Your task to perform on an android device: Search for Italian restaurants on Maps Image 0: 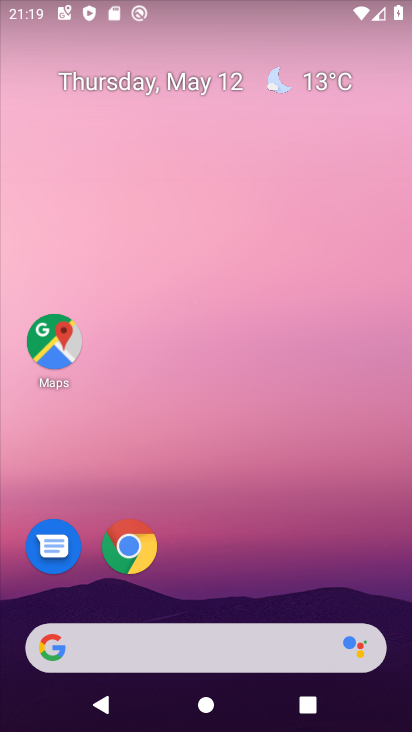
Step 0: click (270, 591)
Your task to perform on an android device: Search for Italian restaurants on Maps Image 1: 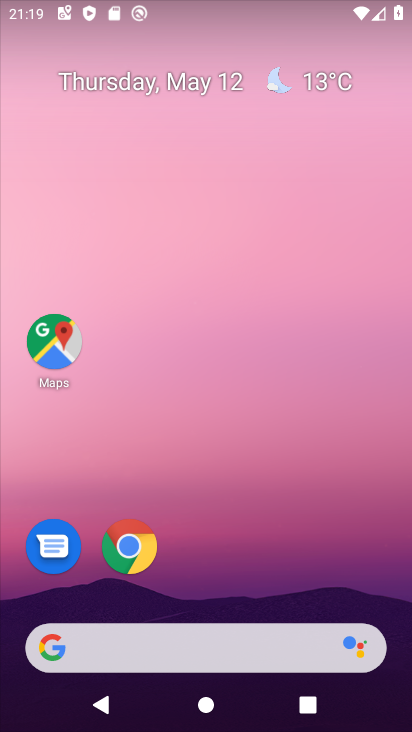
Step 1: click (62, 331)
Your task to perform on an android device: Search for Italian restaurants on Maps Image 2: 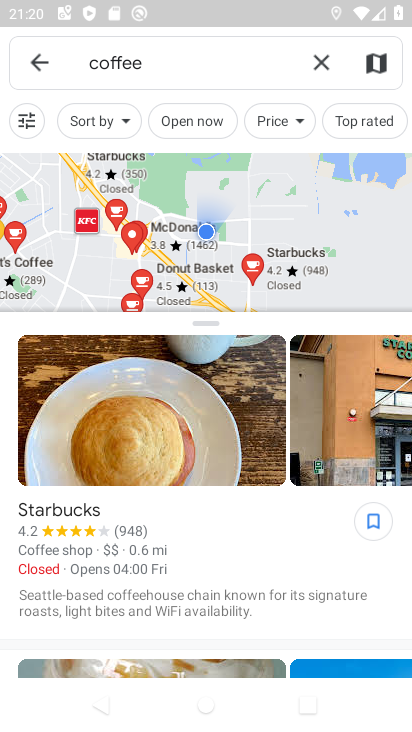
Step 2: click (317, 63)
Your task to perform on an android device: Search for Italian restaurants on Maps Image 3: 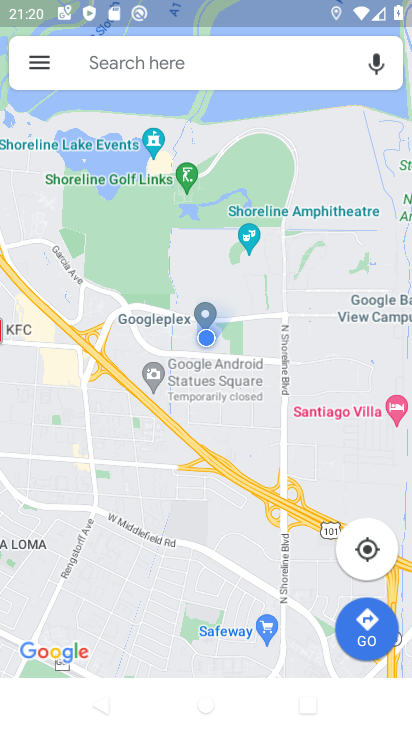
Step 3: click (165, 65)
Your task to perform on an android device: Search for Italian restaurants on Maps Image 4: 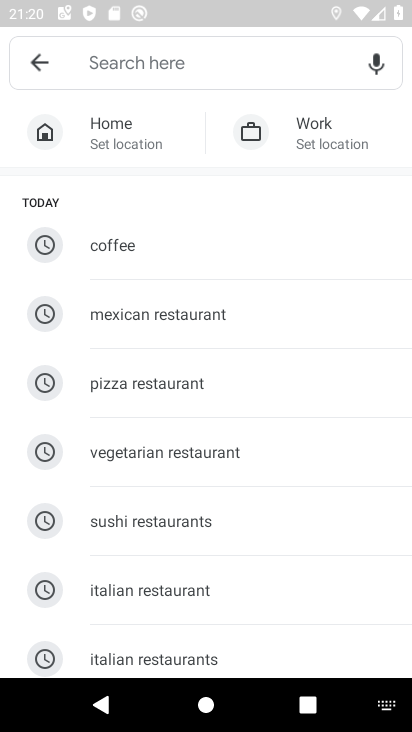
Step 4: type " Italian restaurants"
Your task to perform on an android device: Search for Italian restaurants on Maps Image 5: 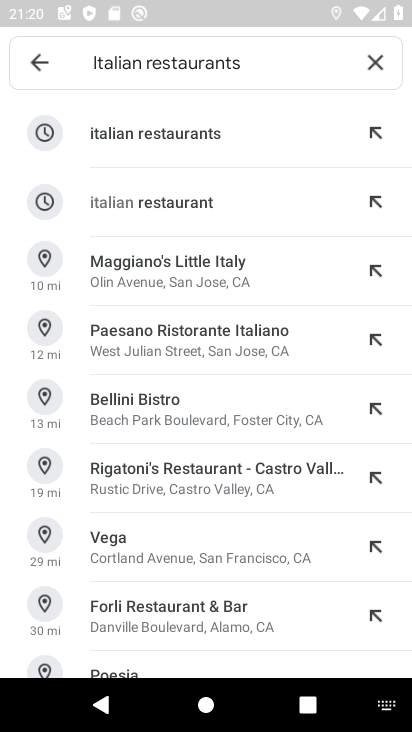
Step 5: click (193, 124)
Your task to perform on an android device: Search for Italian restaurants on Maps Image 6: 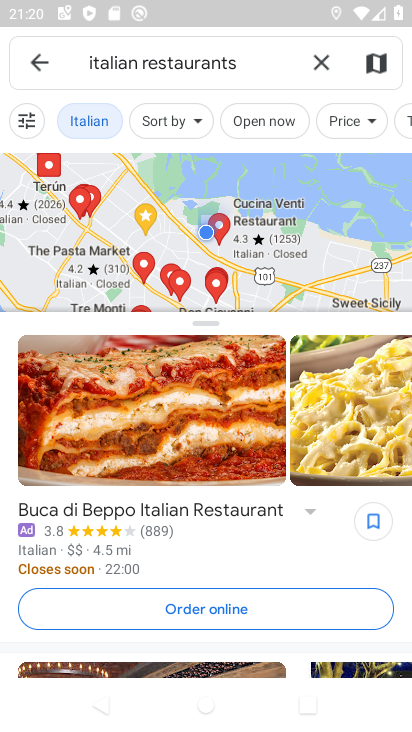
Step 6: task complete